Your task to perform on an android device: What's the weather going to be tomorrow? Image 0: 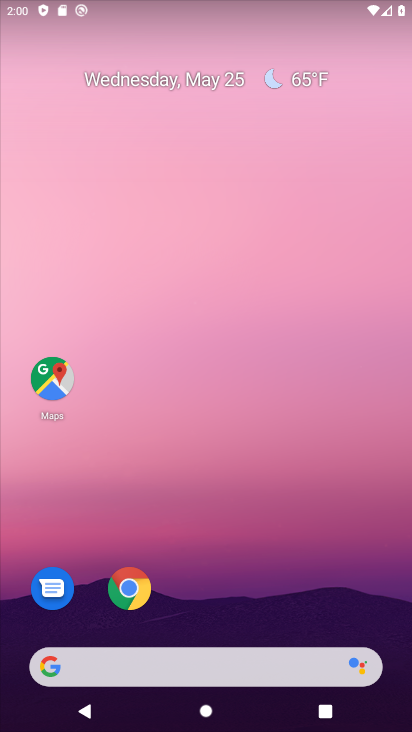
Step 0: press home button
Your task to perform on an android device: What's the weather going to be tomorrow? Image 1: 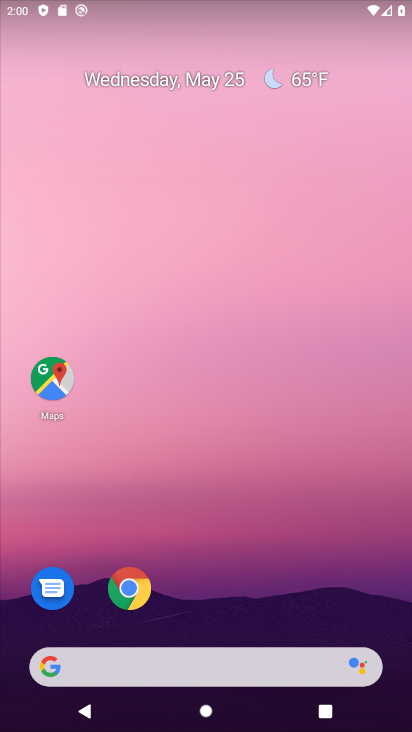
Step 1: click (133, 593)
Your task to perform on an android device: What's the weather going to be tomorrow? Image 2: 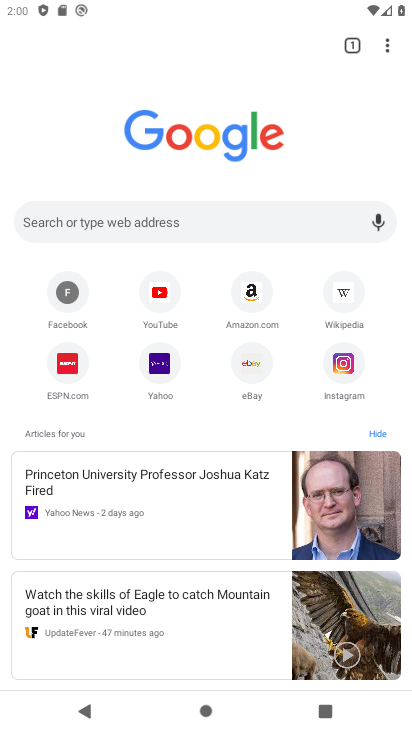
Step 2: click (112, 223)
Your task to perform on an android device: What's the weather going to be tomorrow? Image 3: 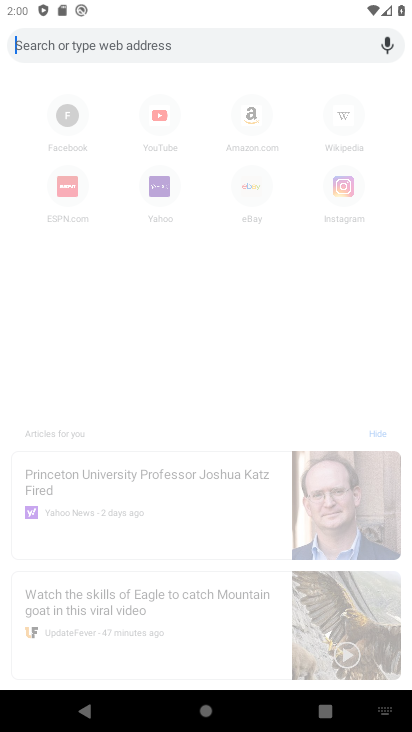
Step 3: type "What's the weather going to be tomorrow?"
Your task to perform on an android device: What's the weather going to be tomorrow? Image 4: 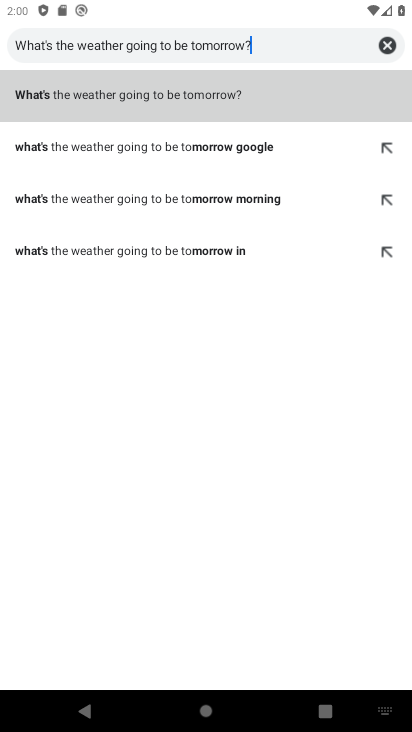
Step 4: click (138, 105)
Your task to perform on an android device: What's the weather going to be tomorrow? Image 5: 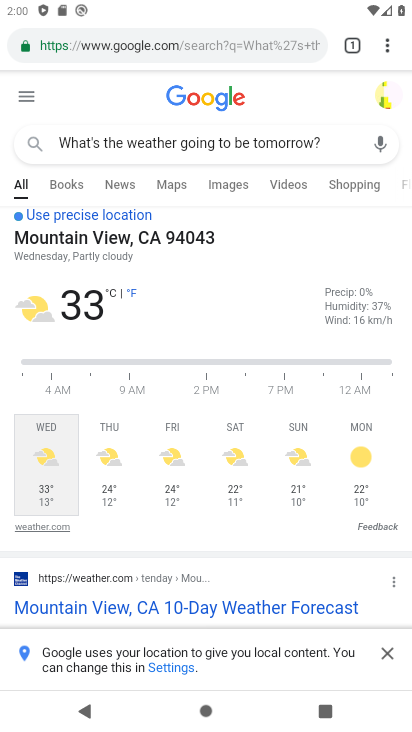
Step 5: task complete